Your task to perform on an android device: Open Reddit.com Image 0: 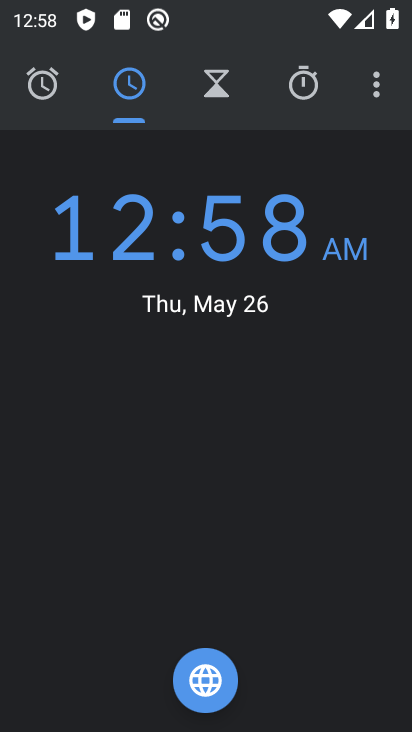
Step 0: click (56, 443)
Your task to perform on an android device: Open Reddit.com Image 1: 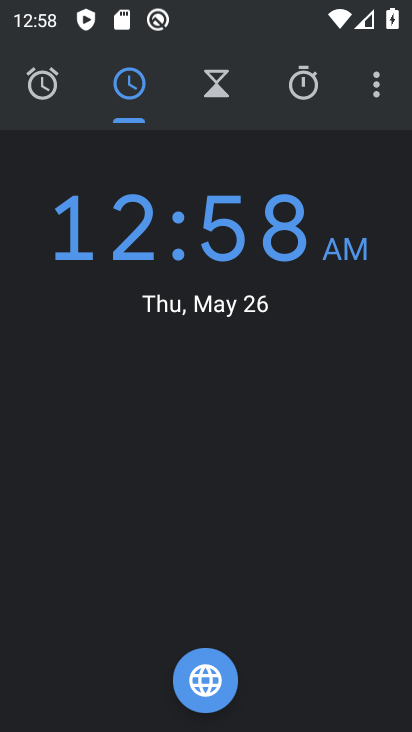
Step 1: press home button
Your task to perform on an android device: Open Reddit.com Image 2: 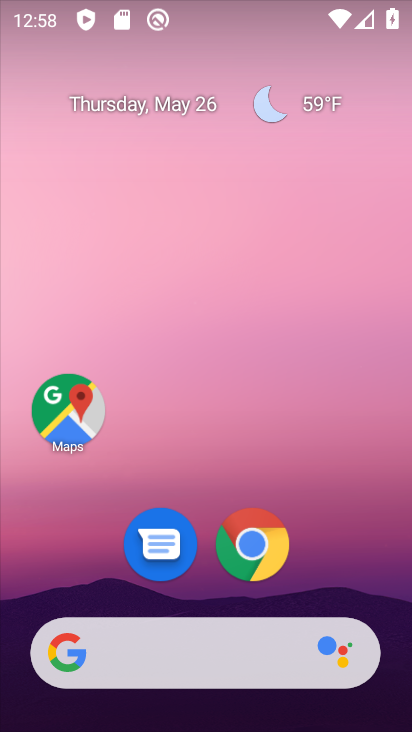
Step 2: click (205, 653)
Your task to perform on an android device: Open Reddit.com Image 3: 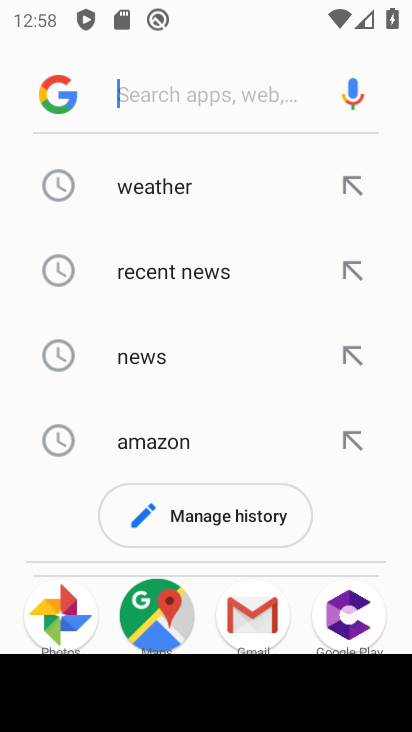
Step 3: type "reddit.com"
Your task to perform on an android device: Open Reddit.com Image 4: 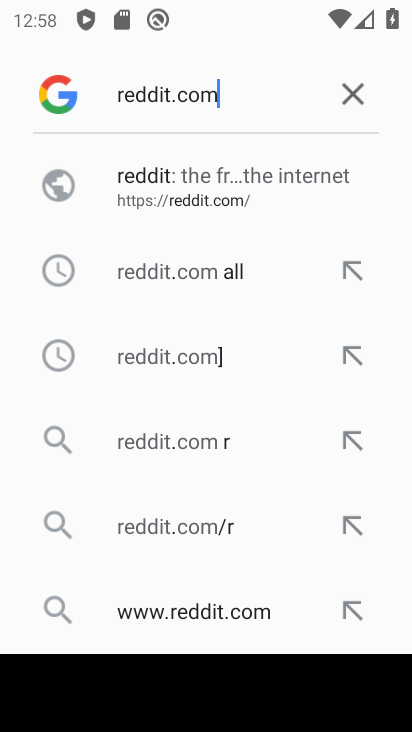
Step 4: click (272, 200)
Your task to perform on an android device: Open Reddit.com Image 5: 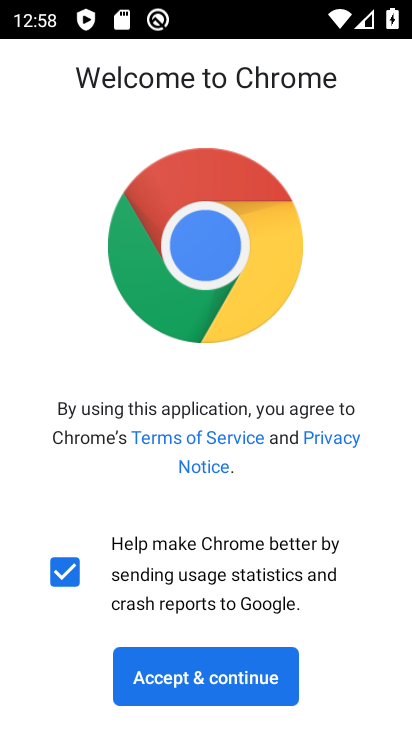
Step 5: click (247, 653)
Your task to perform on an android device: Open Reddit.com Image 6: 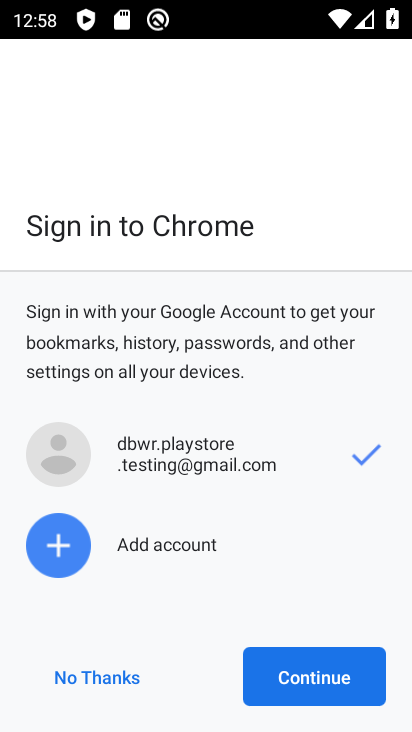
Step 6: click (247, 653)
Your task to perform on an android device: Open Reddit.com Image 7: 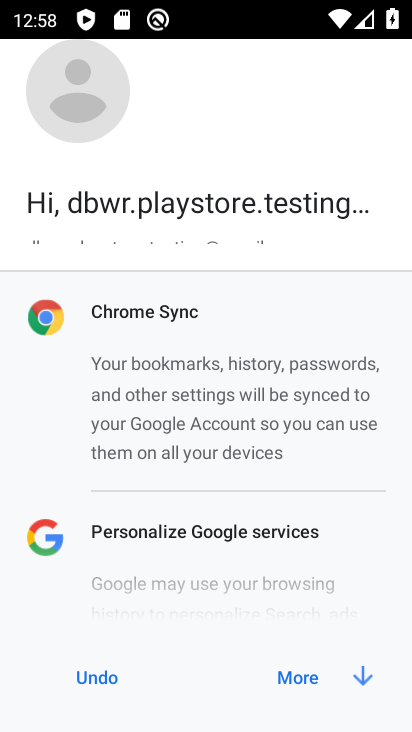
Step 7: click (361, 668)
Your task to perform on an android device: Open Reddit.com Image 8: 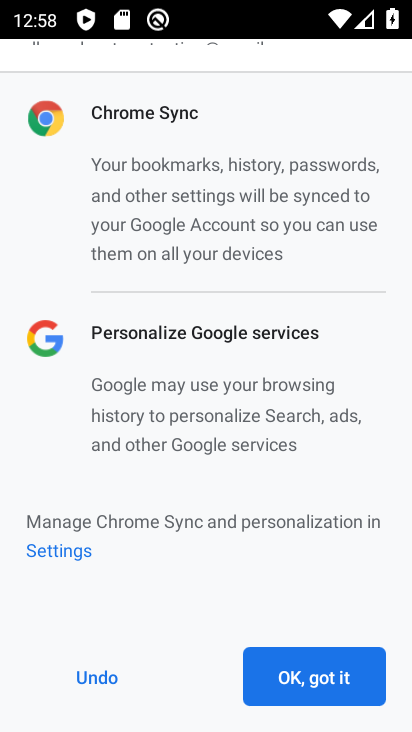
Step 8: click (361, 668)
Your task to perform on an android device: Open Reddit.com Image 9: 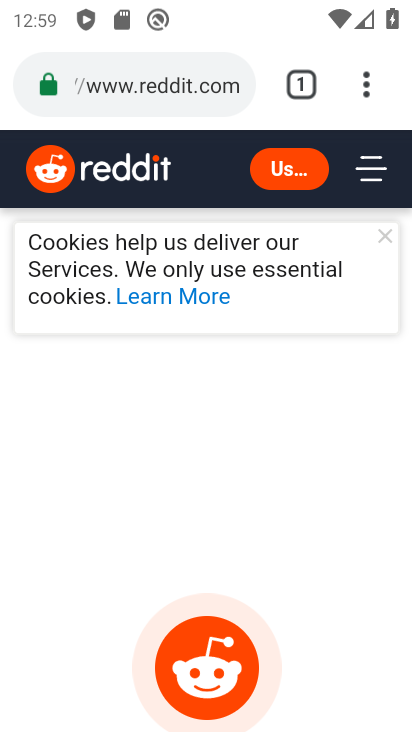
Step 9: task complete